Your task to perform on an android device: Search for "duracell triple a" on walmart.com, select the first entry, add it to the cart, then select checkout. Image 0: 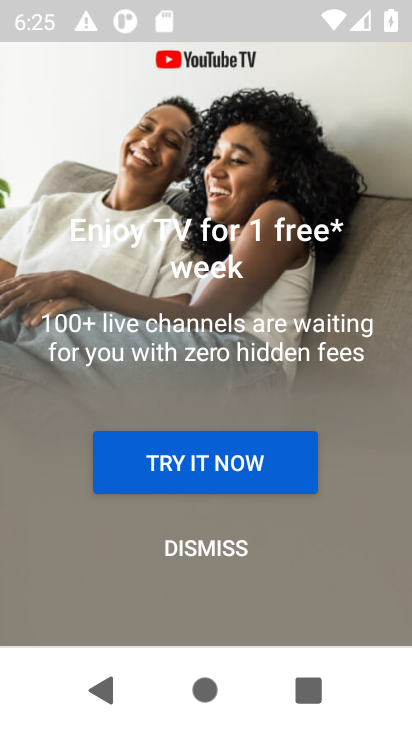
Step 0: press home button
Your task to perform on an android device: Search for "duracell triple a" on walmart.com, select the first entry, add it to the cart, then select checkout. Image 1: 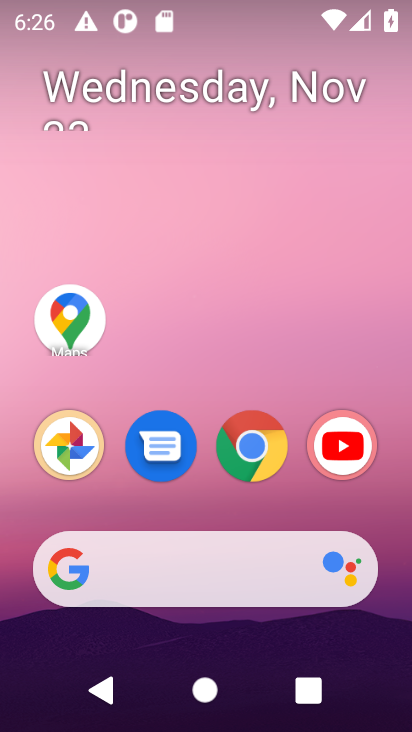
Step 1: click (162, 592)
Your task to perform on an android device: Search for "duracell triple a" on walmart.com, select the first entry, add it to the cart, then select checkout. Image 2: 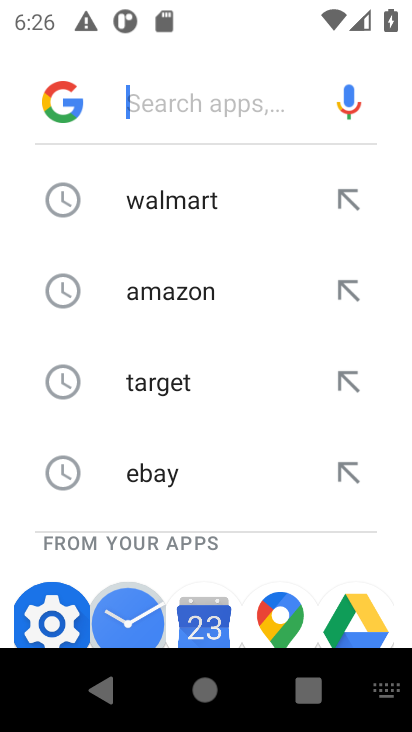
Step 2: type "duracell "
Your task to perform on an android device: Search for "duracell triple a" on walmart.com, select the first entry, add it to the cart, then select checkout. Image 3: 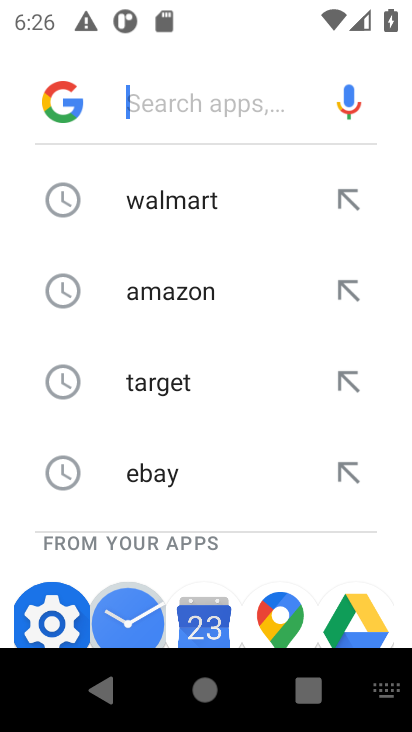
Step 3: click (168, 288)
Your task to perform on an android device: Search for "duracell triple a" on walmart.com, select the first entry, add it to the cart, then select checkout. Image 4: 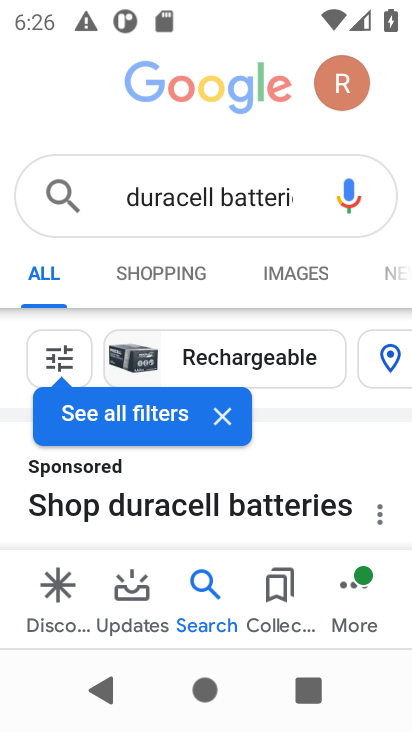
Step 4: drag from (144, 458) to (212, 93)
Your task to perform on an android device: Search for "duracell triple a" on walmart.com, select the first entry, add it to the cart, then select checkout. Image 5: 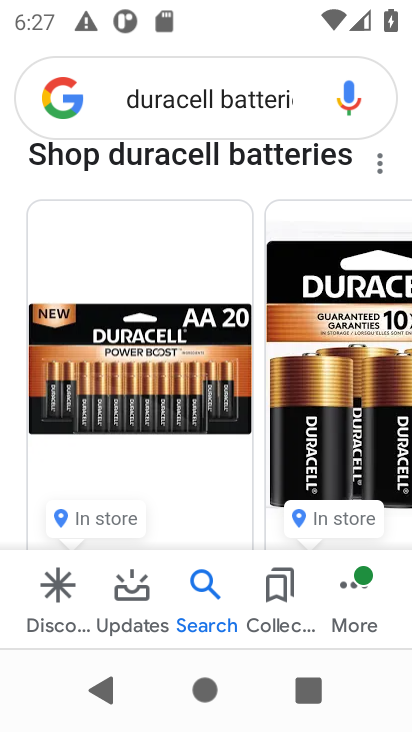
Step 5: click (224, 229)
Your task to perform on an android device: Search for "duracell triple a" on walmart.com, select the first entry, add it to the cart, then select checkout. Image 6: 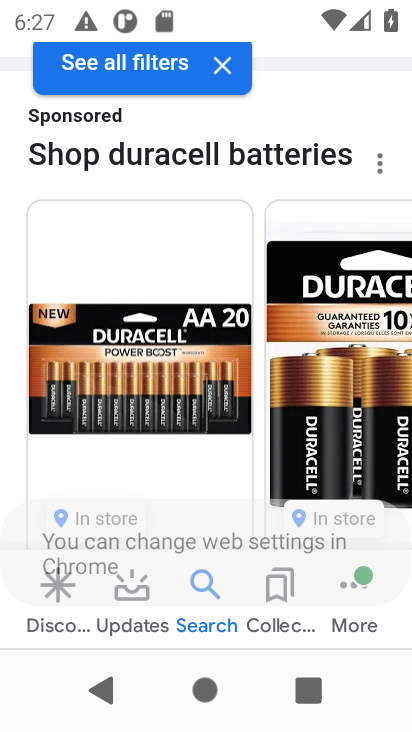
Step 6: task complete